Your task to perform on an android device: What's on my calendar tomorrow? Image 0: 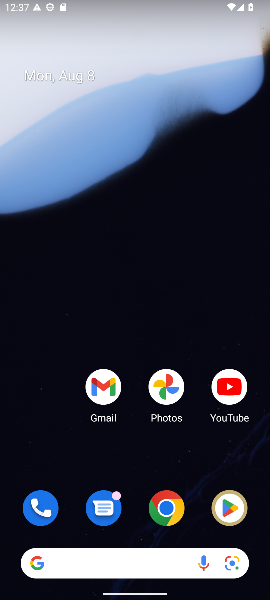
Step 0: click (112, 94)
Your task to perform on an android device: What's on my calendar tomorrow? Image 1: 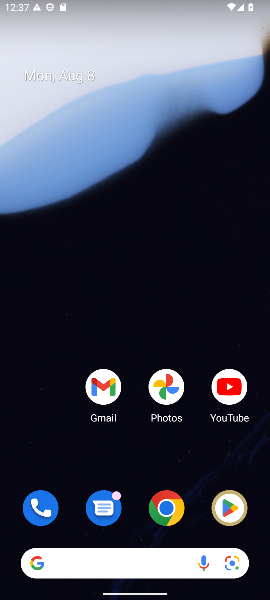
Step 1: drag from (134, 513) to (127, 215)
Your task to perform on an android device: What's on my calendar tomorrow? Image 2: 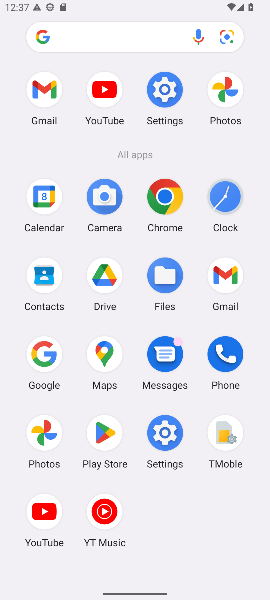
Step 2: click (40, 220)
Your task to perform on an android device: What's on my calendar tomorrow? Image 3: 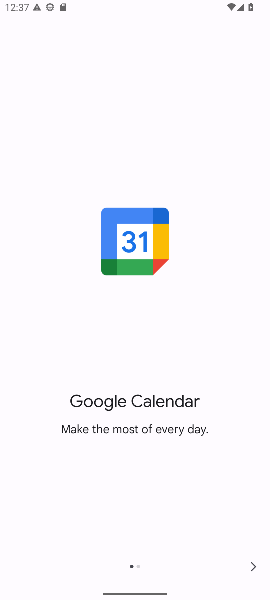
Step 3: click (258, 572)
Your task to perform on an android device: What's on my calendar tomorrow? Image 4: 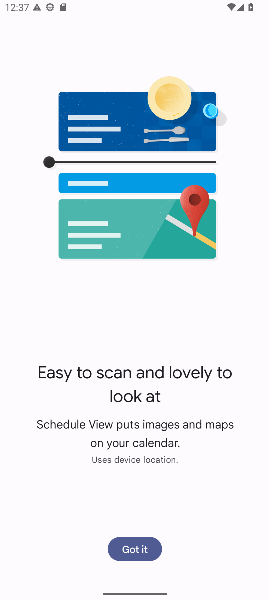
Step 4: click (123, 552)
Your task to perform on an android device: What's on my calendar tomorrow? Image 5: 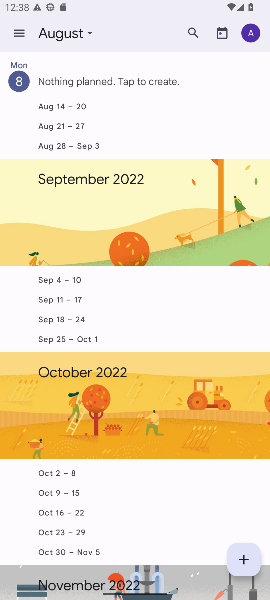
Step 5: click (51, 28)
Your task to perform on an android device: What's on my calendar tomorrow? Image 6: 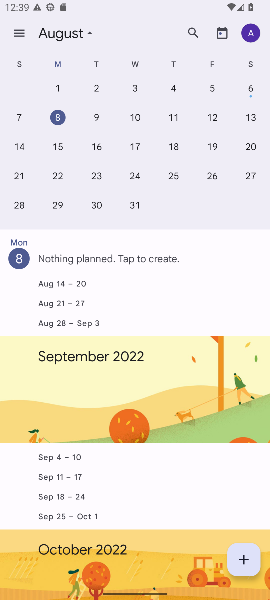
Step 6: click (97, 117)
Your task to perform on an android device: What's on my calendar tomorrow? Image 7: 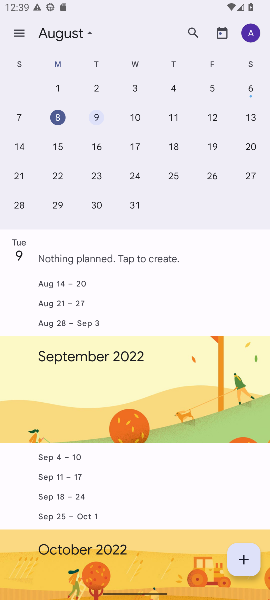
Step 7: click (97, 117)
Your task to perform on an android device: What's on my calendar tomorrow? Image 8: 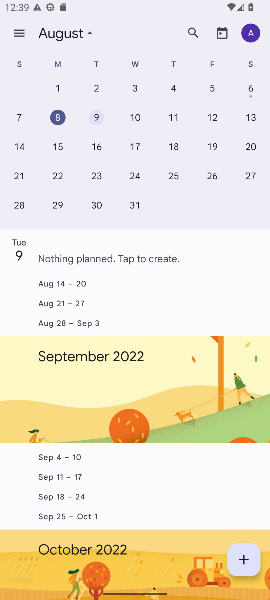
Step 8: click (97, 117)
Your task to perform on an android device: What's on my calendar tomorrow? Image 9: 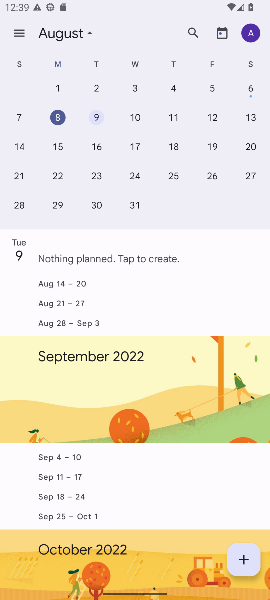
Step 9: task complete